Your task to perform on an android device: Open settings on Google Maps Image 0: 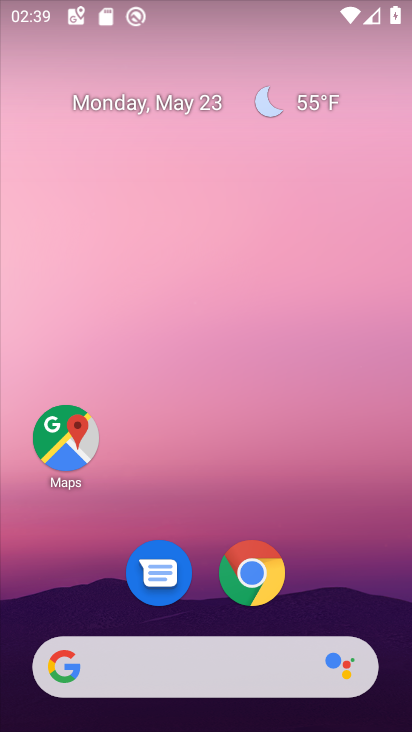
Step 0: click (68, 432)
Your task to perform on an android device: Open settings on Google Maps Image 1: 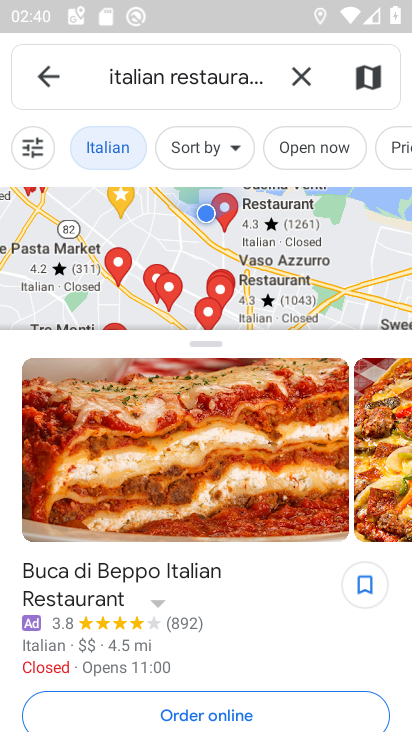
Step 1: click (30, 68)
Your task to perform on an android device: Open settings on Google Maps Image 2: 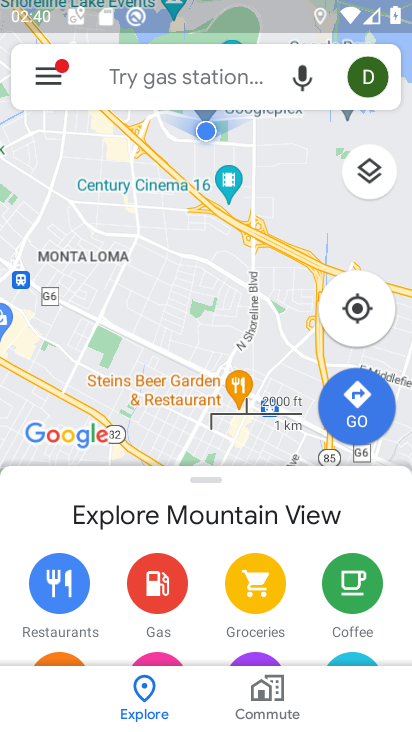
Step 2: click (51, 57)
Your task to perform on an android device: Open settings on Google Maps Image 3: 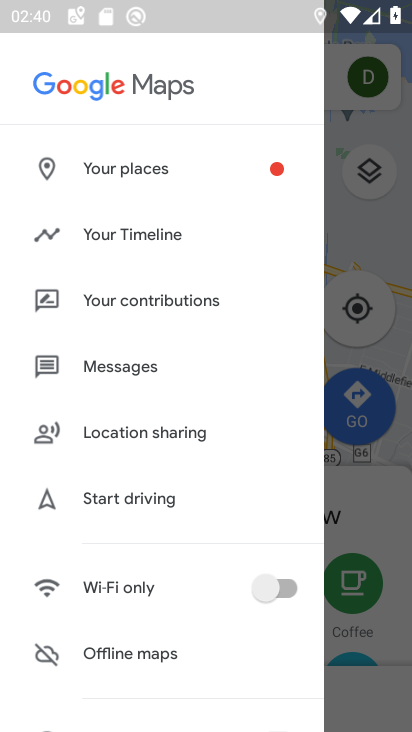
Step 3: drag from (168, 578) to (179, 206)
Your task to perform on an android device: Open settings on Google Maps Image 4: 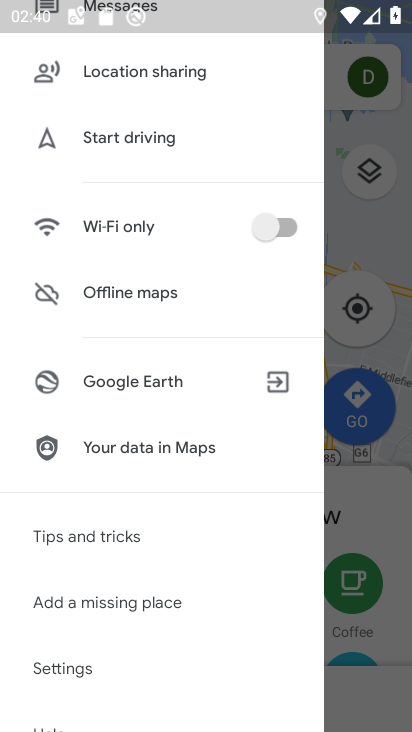
Step 4: click (83, 677)
Your task to perform on an android device: Open settings on Google Maps Image 5: 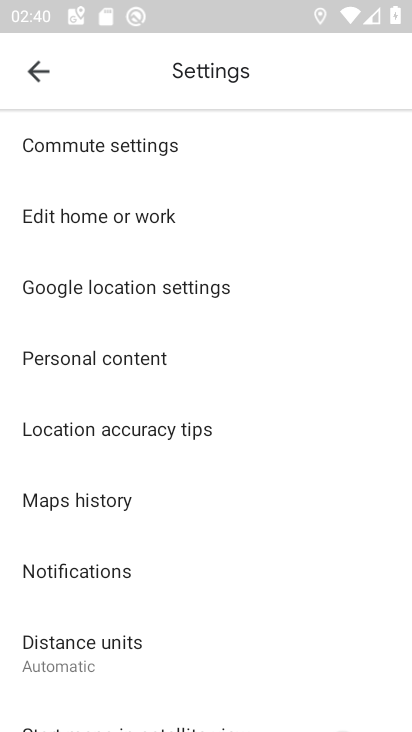
Step 5: task complete